Your task to perform on an android device: change keyboard looks Image 0: 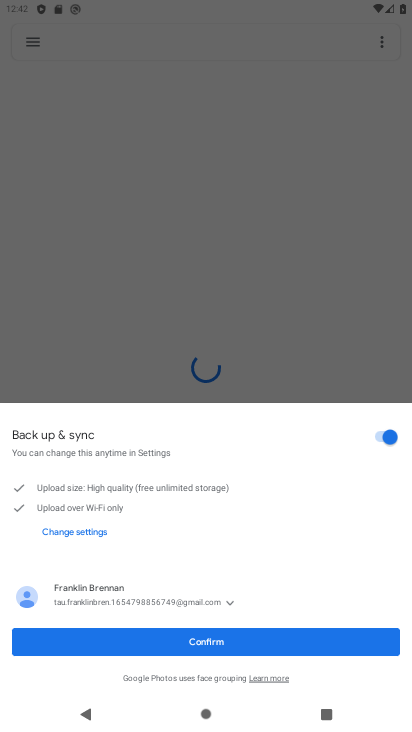
Step 0: press home button
Your task to perform on an android device: change keyboard looks Image 1: 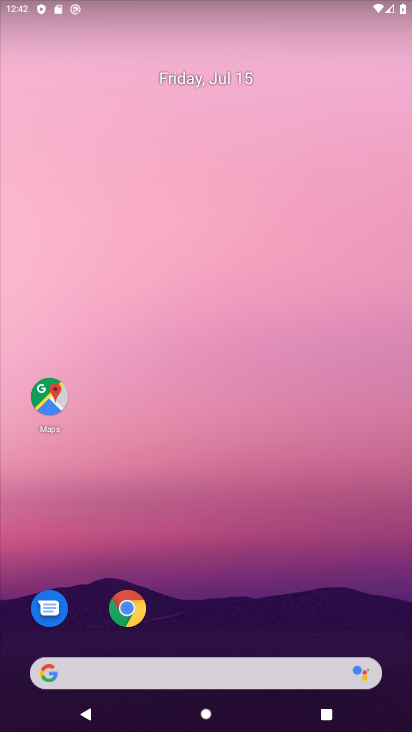
Step 1: drag from (273, 618) to (209, 175)
Your task to perform on an android device: change keyboard looks Image 2: 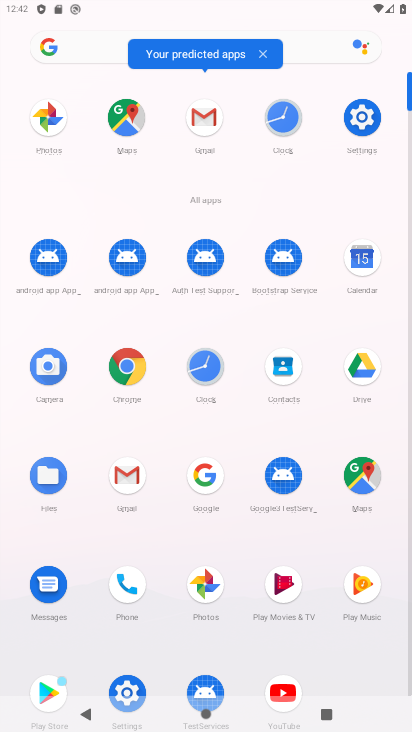
Step 2: click (353, 118)
Your task to perform on an android device: change keyboard looks Image 3: 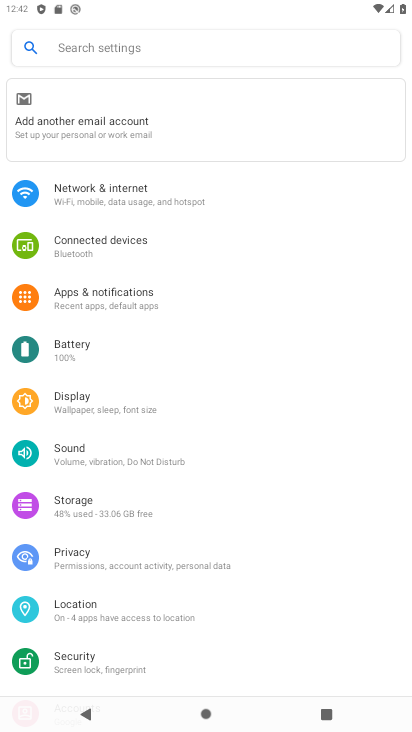
Step 3: drag from (75, 670) to (52, 379)
Your task to perform on an android device: change keyboard looks Image 4: 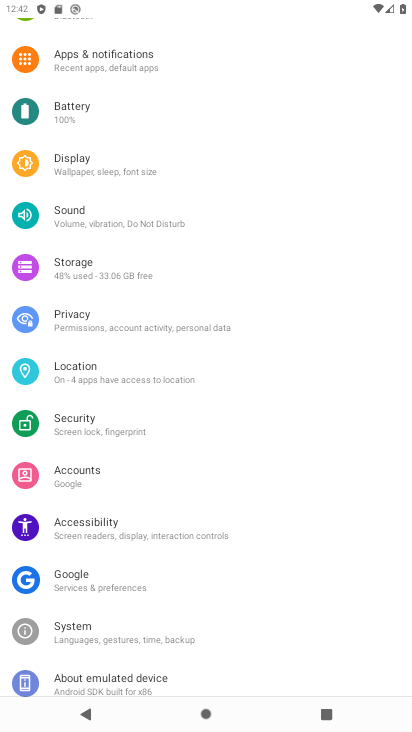
Step 4: click (74, 521)
Your task to perform on an android device: change keyboard looks Image 5: 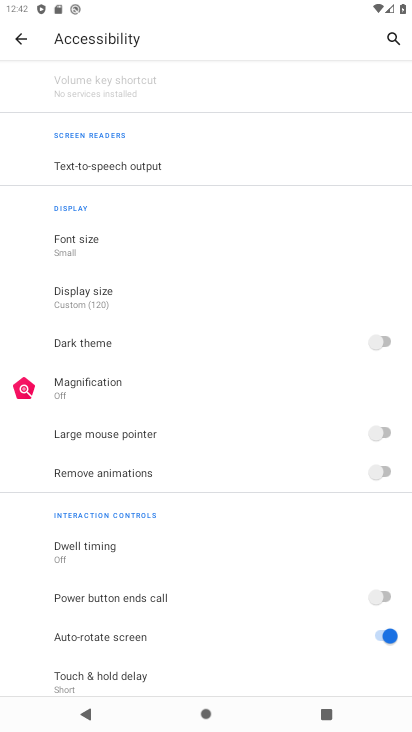
Step 5: click (21, 39)
Your task to perform on an android device: change keyboard looks Image 6: 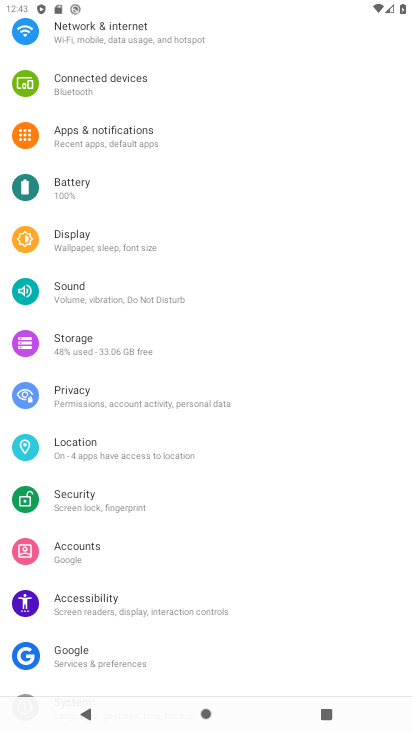
Step 6: drag from (101, 665) to (101, 403)
Your task to perform on an android device: change keyboard looks Image 7: 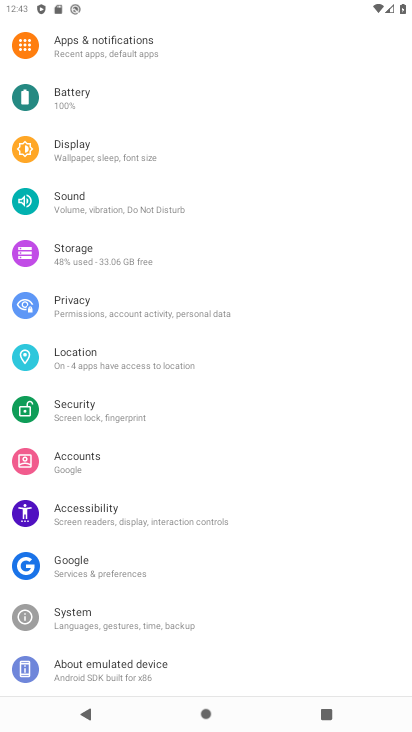
Step 7: click (82, 601)
Your task to perform on an android device: change keyboard looks Image 8: 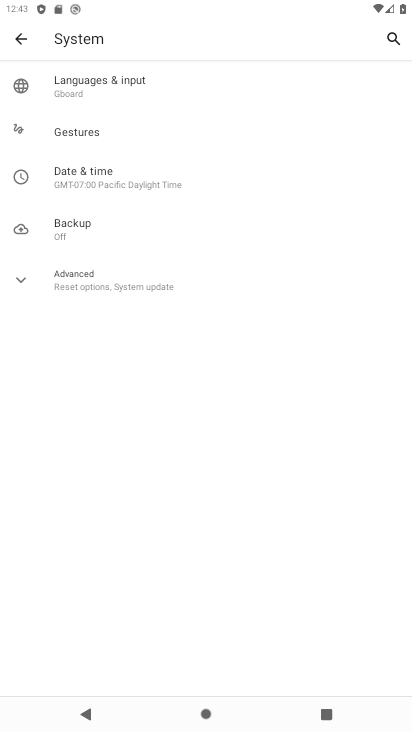
Step 8: click (63, 284)
Your task to perform on an android device: change keyboard looks Image 9: 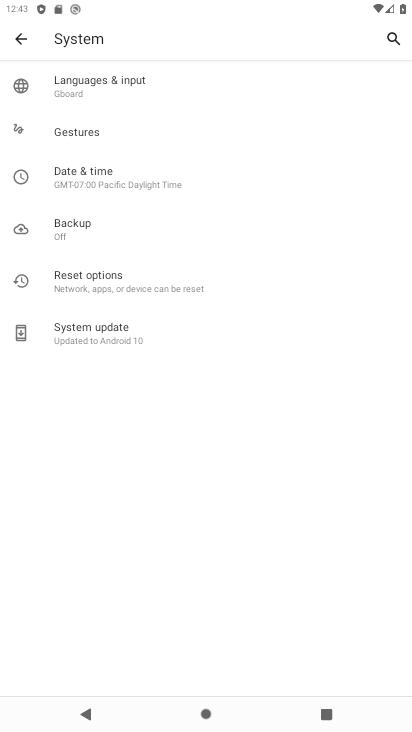
Step 9: click (108, 85)
Your task to perform on an android device: change keyboard looks Image 10: 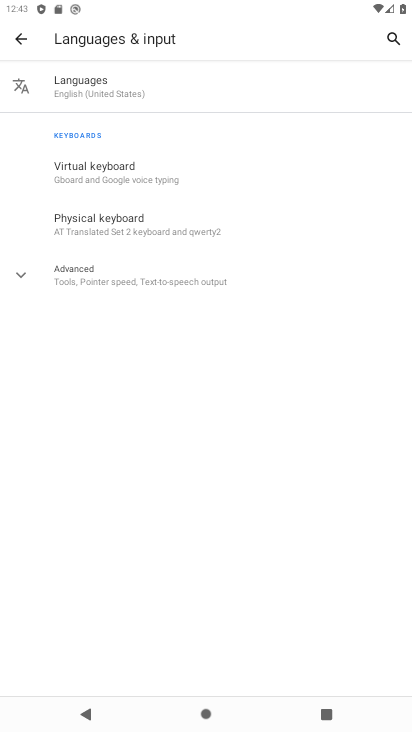
Step 10: click (84, 163)
Your task to perform on an android device: change keyboard looks Image 11: 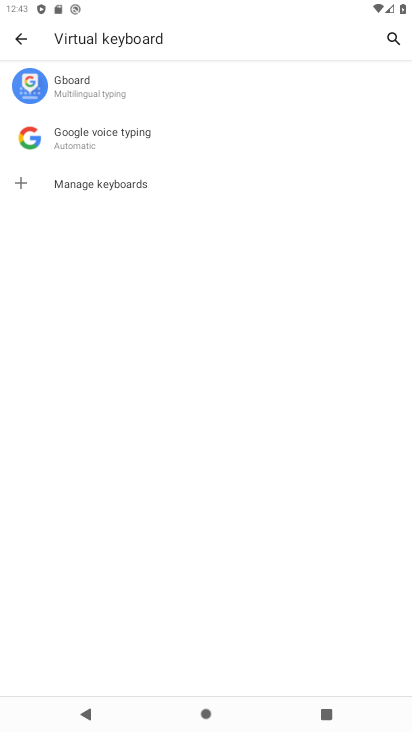
Step 11: click (84, 84)
Your task to perform on an android device: change keyboard looks Image 12: 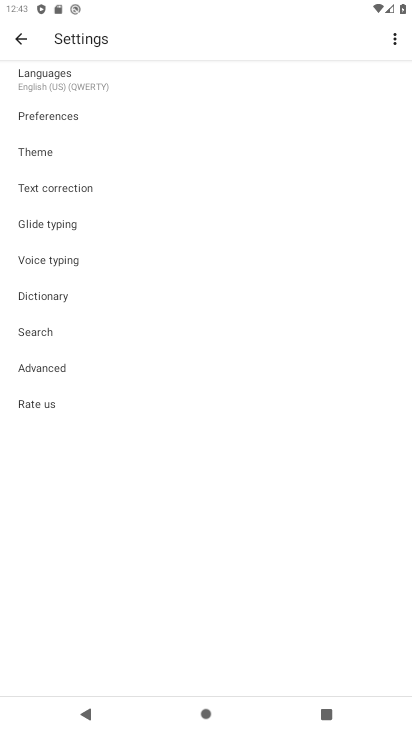
Step 12: click (22, 156)
Your task to perform on an android device: change keyboard looks Image 13: 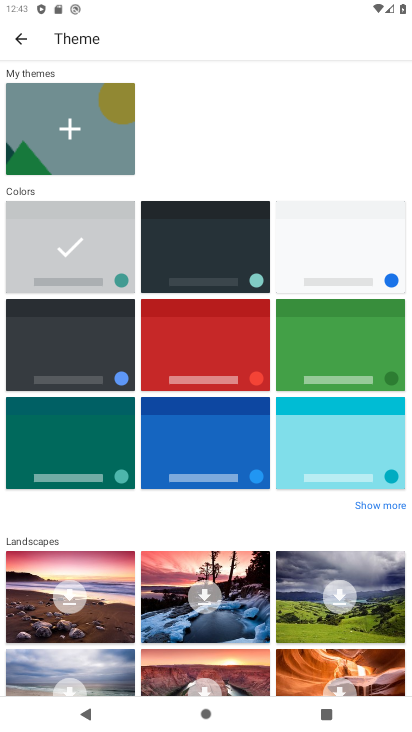
Step 13: click (146, 333)
Your task to perform on an android device: change keyboard looks Image 14: 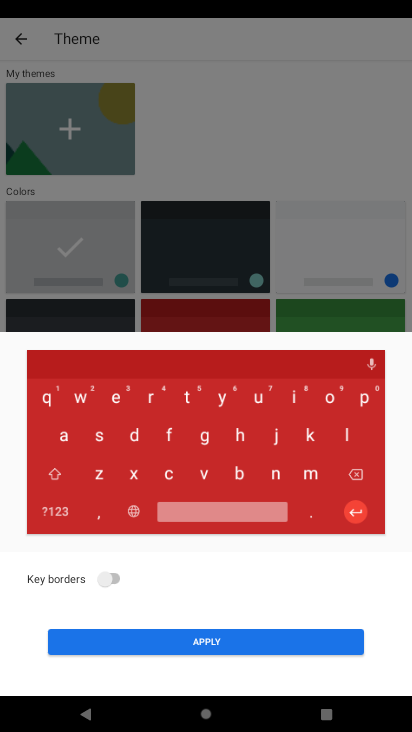
Step 14: click (258, 649)
Your task to perform on an android device: change keyboard looks Image 15: 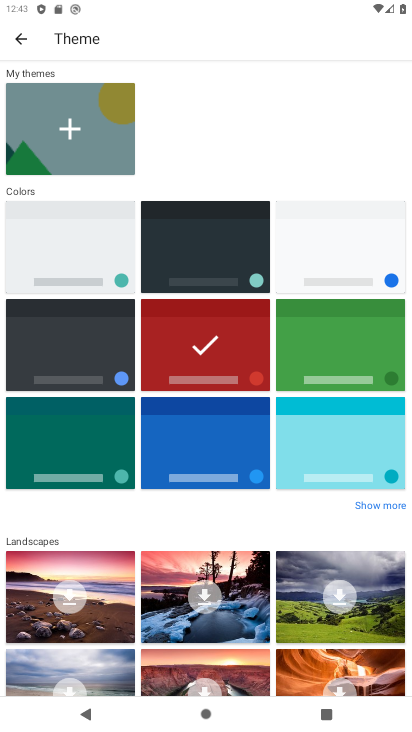
Step 15: task complete